Your task to perform on an android device: toggle airplane mode Image 0: 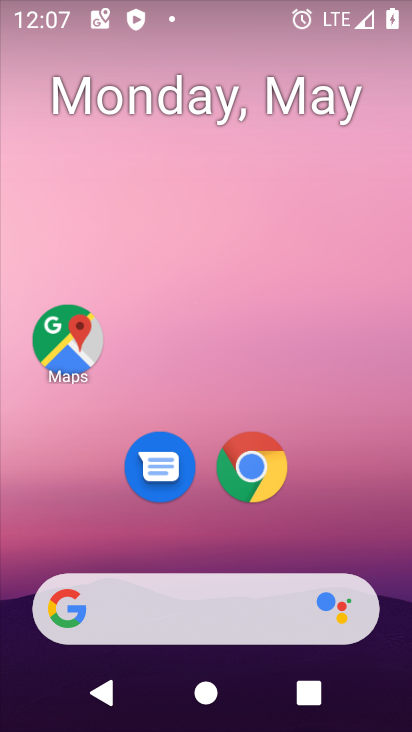
Step 0: drag from (366, 575) to (369, 6)
Your task to perform on an android device: toggle airplane mode Image 1: 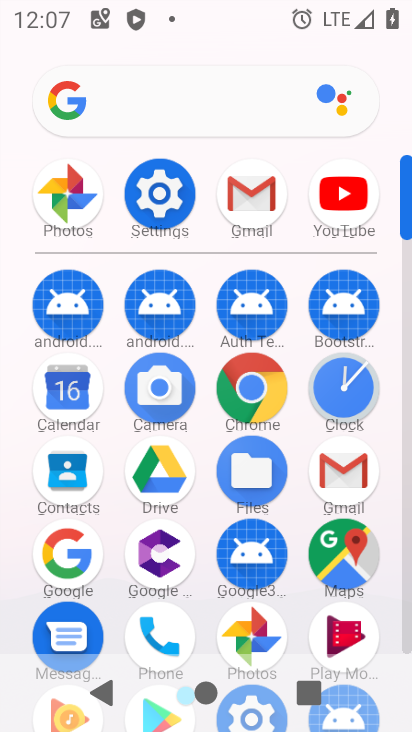
Step 1: click (159, 203)
Your task to perform on an android device: toggle airplane mode Image 2: 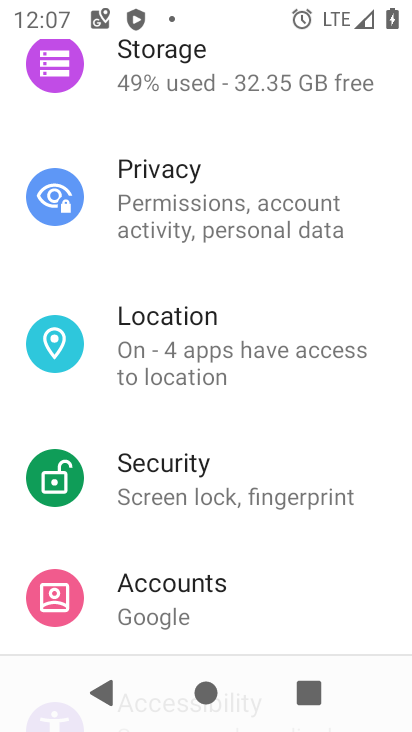
Step 2: drag from (331, 256) to (358, 666)
Your task to perform on an android device: toggle airplane mode Image 3: 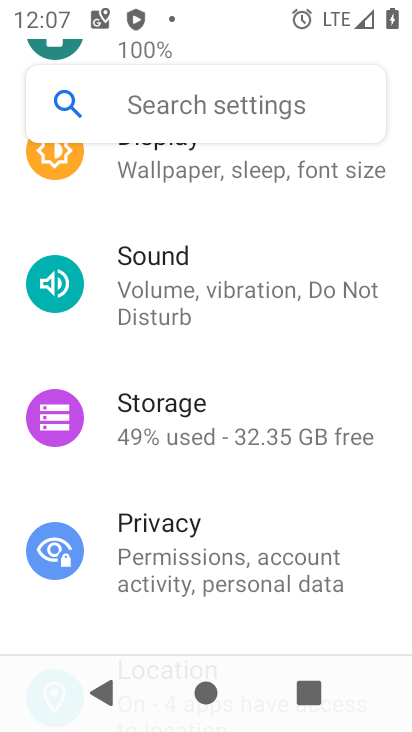
Step 3: drag from (355, 230) to (322, 654)
Your task to perform on an android device: toggle airplane mode Image 4: 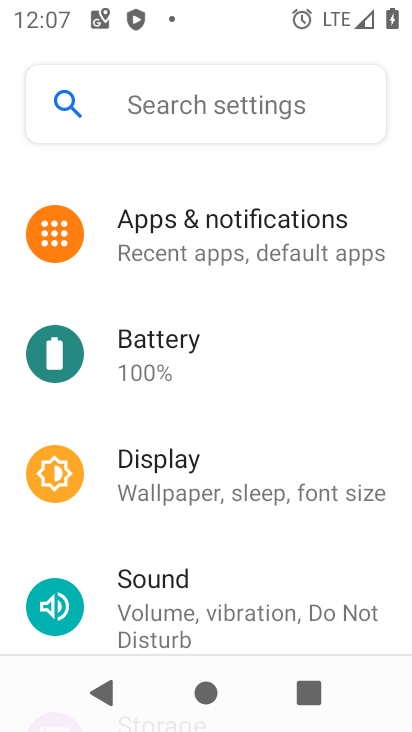
Step 4: drag from (323, 248) to (331, 558)
Your task to perform on an android device: toggle airplane mode Image 5: 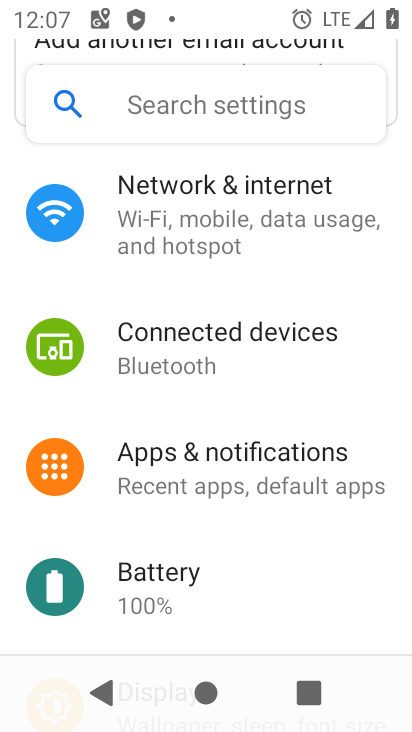
Step 5: click (203, 228)
Your task to perform on an android device: toggle airplane mode Image 6: 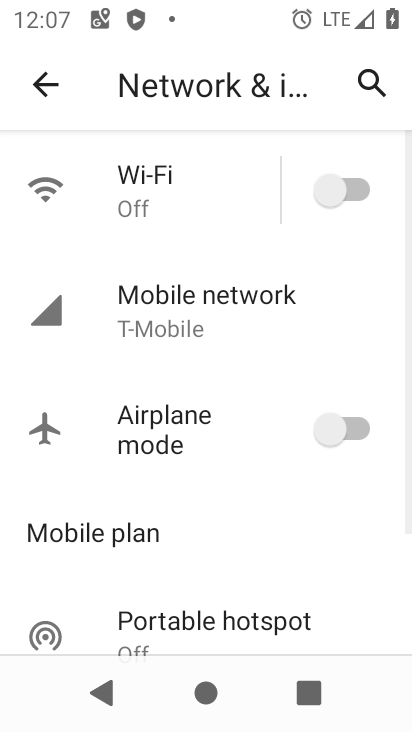
Step 6: click (325, 430)
Your task to perform on an android device: toggle airplane mode Image 7: 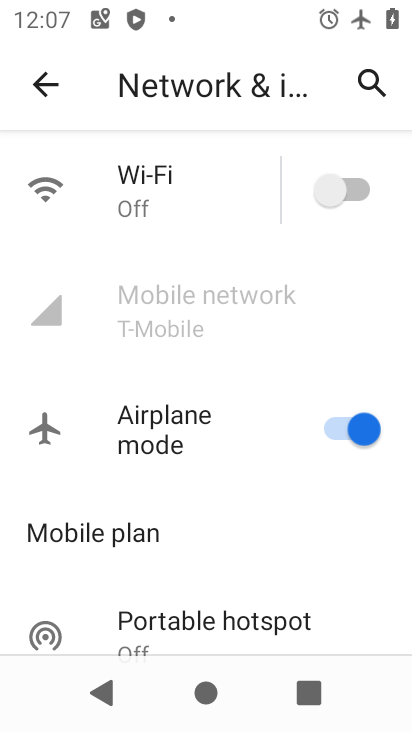
Step 7: task complete